Your task to perform on an android device: Open calendar and show me the first week of next month Image 0: 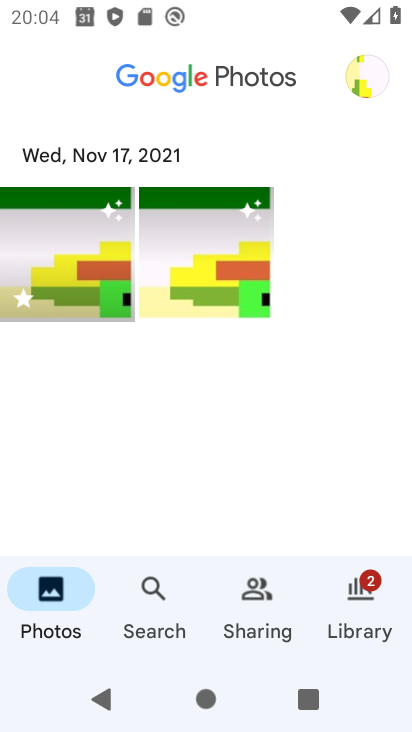
Step 0: press home button
Your task to perform on an android device: Open calendar and show me the first week of next month Image 1: 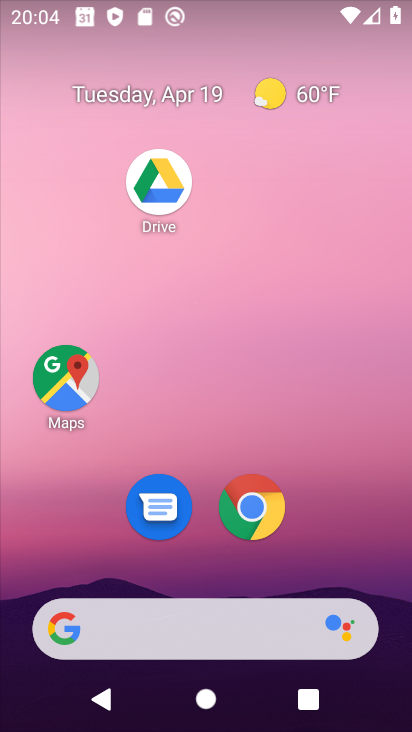
Step 1: drag from (347, 517) to (327, 92)
Your task to perform on an android device: Open calendar and show me the first week of next month Image 2: 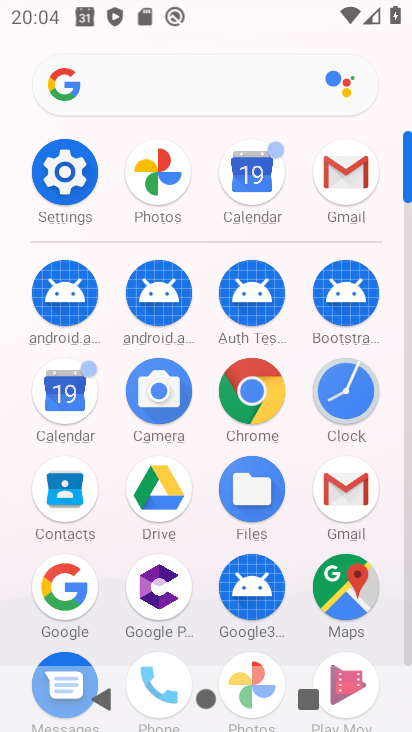
Step 2: click (259, 171)
Your task to perform on an android device: Open calendar and show me the first week of next month Image 3: 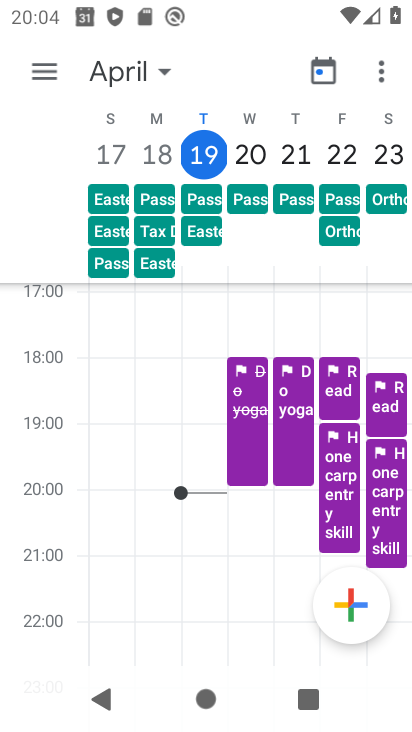
Step 3: task complete